Your task to perform on an android device: toggle notifications settings in the gmail app Image 0: 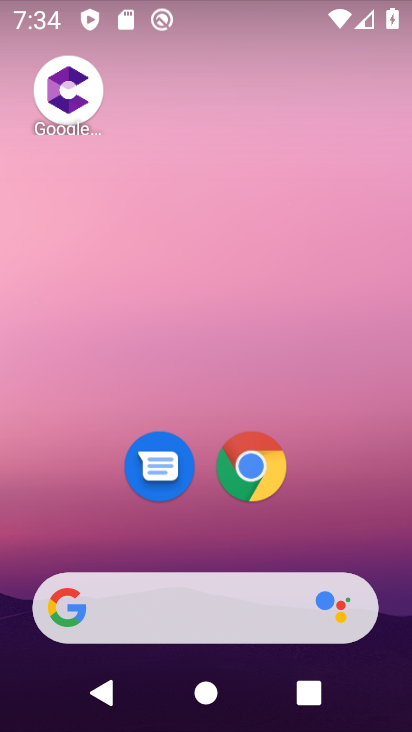
Step 0: drag from (332, 524) to (332, 187)
Your task to perform on an android device: toggle notifications settings in the gmail app Image 1: 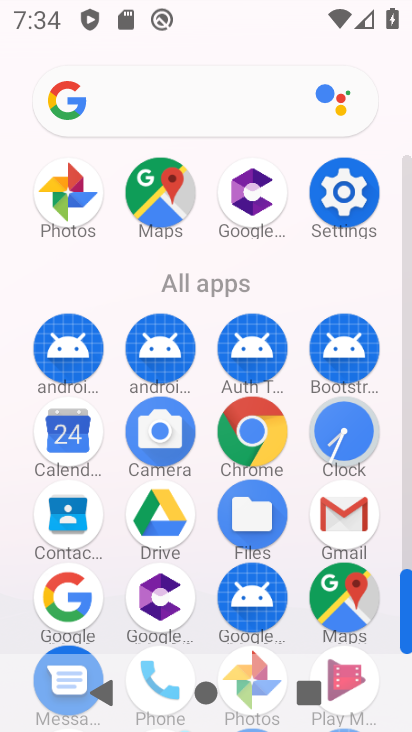
Step 1: click (321, 530)
Your task to perform on an android device: toggle notifications settings in the gmail app Image 2: 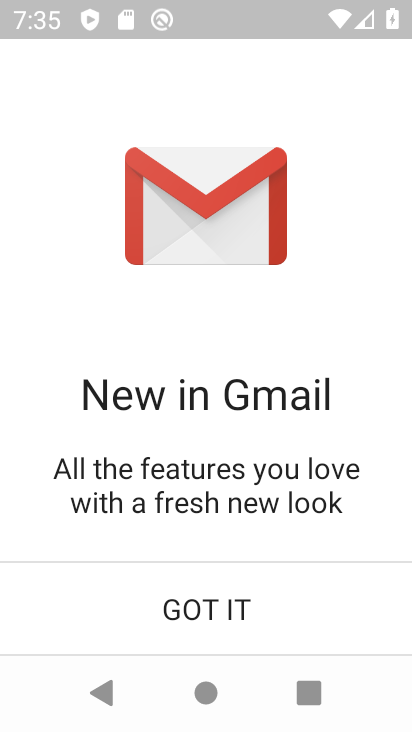
Step 2: click (301, 603)
Your task to perform on an android device: toggle notifications settings in the gmail app Image 3: 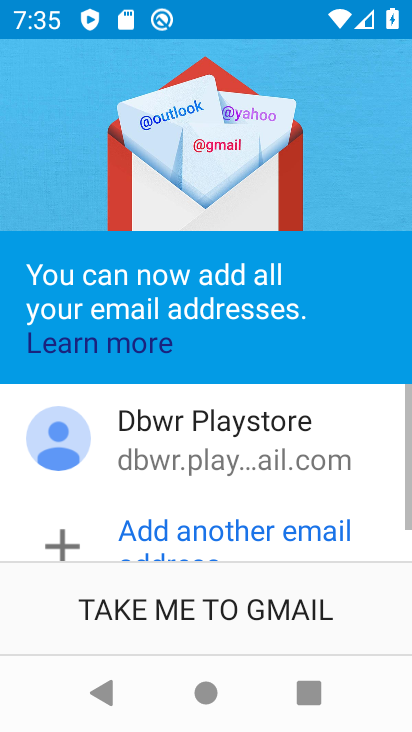
Step 3: click (301, 603)
Your task to perform on an android device: toggle notifications settings in the gmail app Image 4: 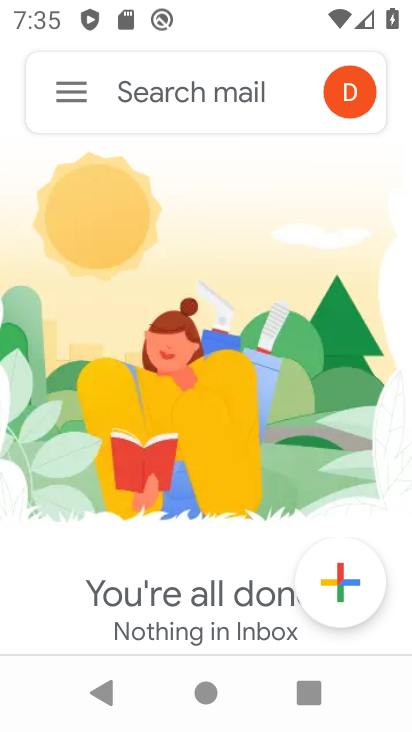
Step 4: click (48, 102)
Your task to perform on an android device: toggle notifications settings in the gmail app Image 5: 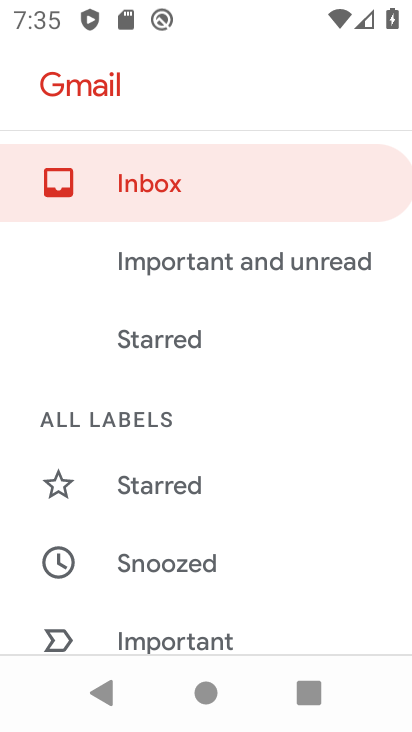
Step 5: drag from (169, 540) to (127, 360)
Your task to perform on an android device: toggle notifications settings in the gmail app Image 6: 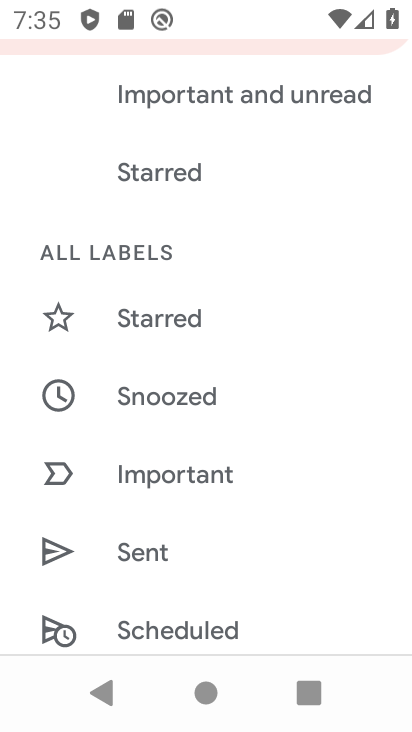
Step 6: drag from (172, 551) to (107, 261)
Your task to perform on an android device: toggle notifications settings in the gmail app Image 7: 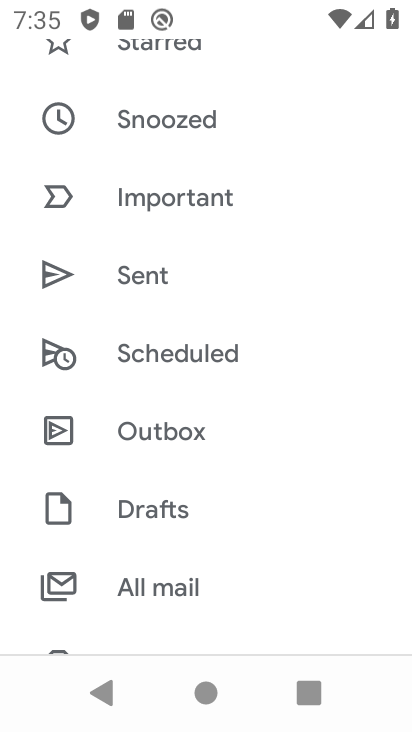
Step 7: click (186, 560)
Your task to perform on an android device: toggle notifications settings in the gmail app Image 8: 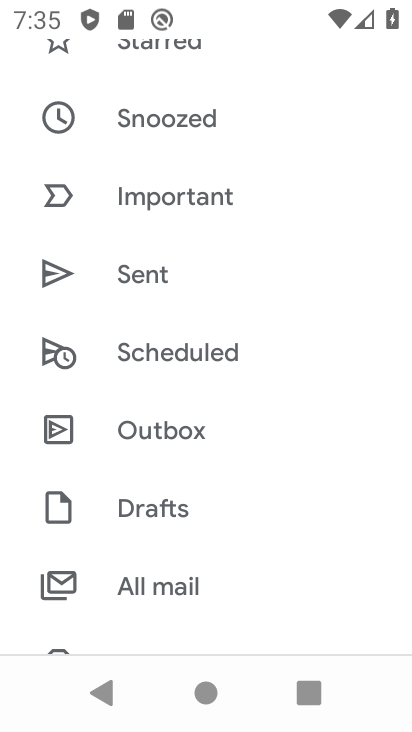
Step 8: drag from (175, 615) to (187, 268)
Your task to perform on an android device: toggle notifications settings in the gmail app Image 9: 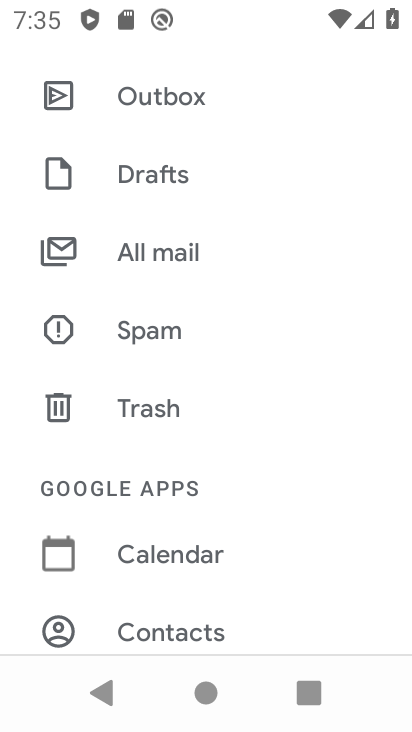
Step 9: drag from (266, 575) to (246, 308)
Your task to perform on an android device: toggle notifications settings in the gmail app Image 10: 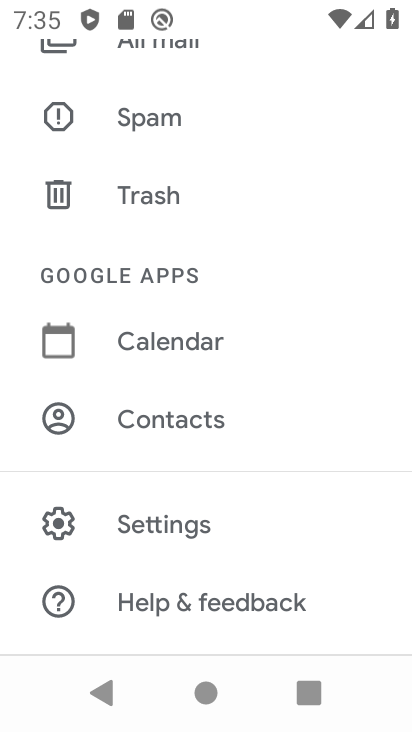
Step 10: click (226, 491)
Your task to perform on an android device: toggle notifications settings in the gmail app Image 11: 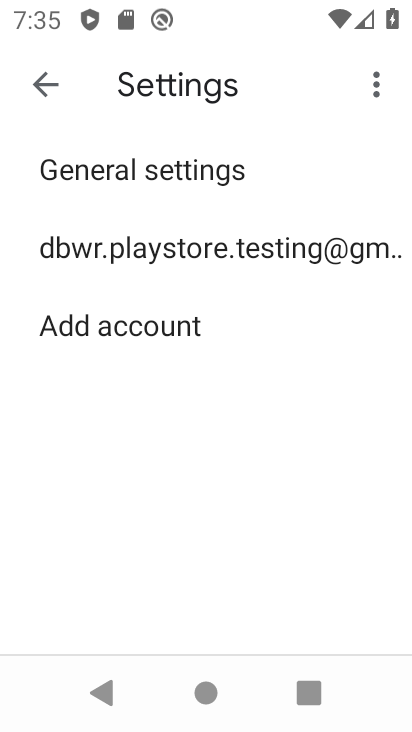
Step 11: click (123, 241)
Your task to perform on an android device: toggle notifications settings in the gmail app Image 12: 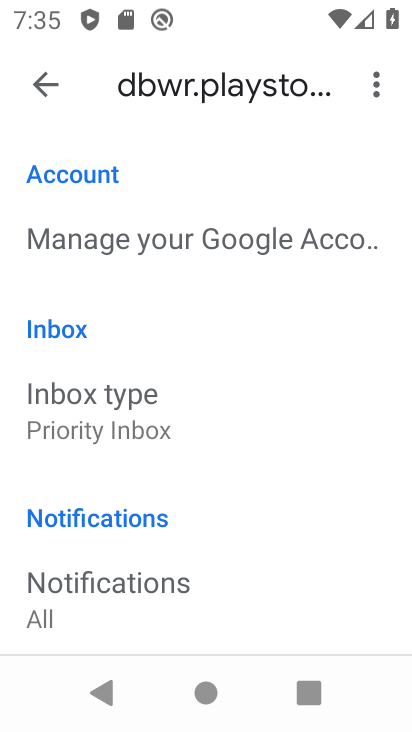
Step 12: drag from (158, 561) to (227, 193)
Your task to perform on an android device: toggle notifications settings in the gmail app Image 13: 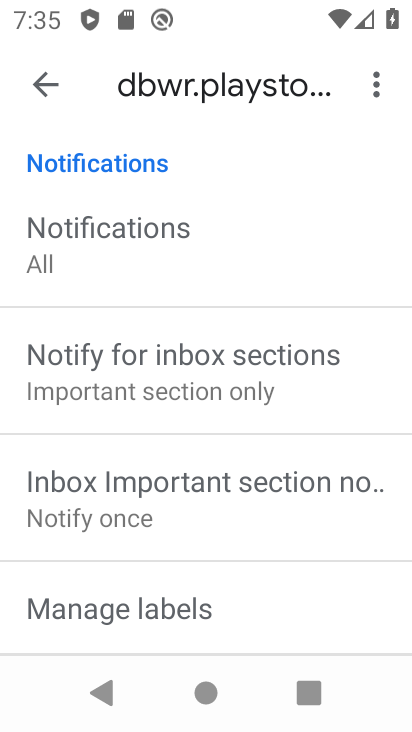
Step 13: drag from (248, 551) to (276, 206)
Your task to perform on an android device: toggle notifications settings in the gmail app Image 14: 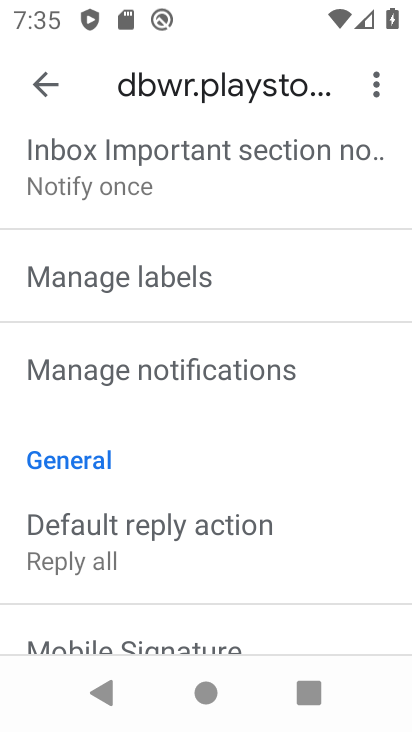
Step 14: click (188, 388)
Your task to perform on an android device: toggle notifications settings in the gmail app Image 15: 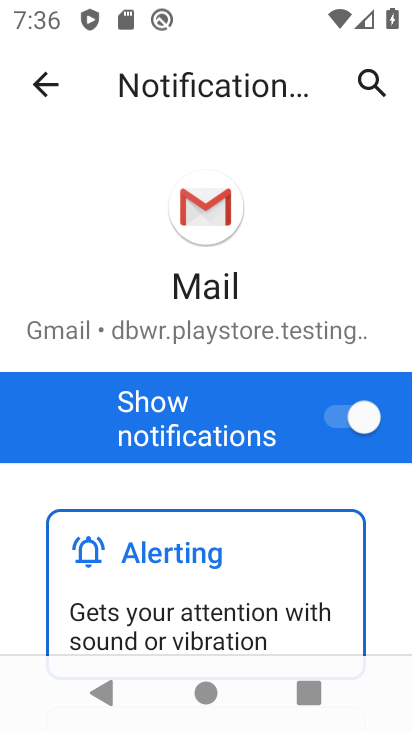
Step 15: click (324, 425)
Your task to perform on an android device: toggle notifications settings in the gmail app Image 16: 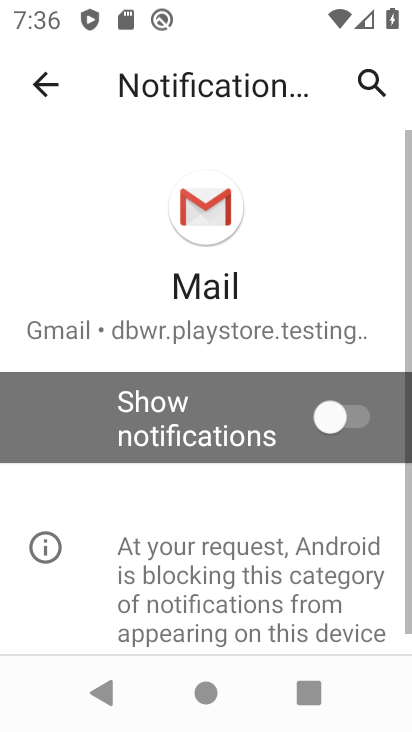
Step 16: task complete